Your task to perform on an android device: Open the calendar app, open the side menu, and click the "Day" option Image 0: 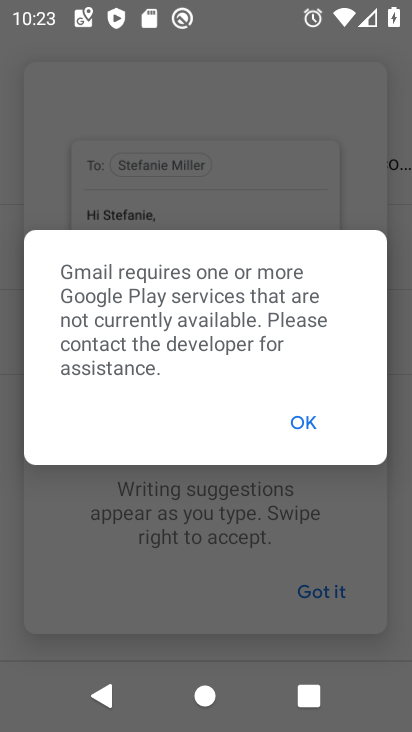
Step 0: press home button
Your task to perform on an android device: Open the calendar app, open the side menu, and click the "Day" option Image 1: 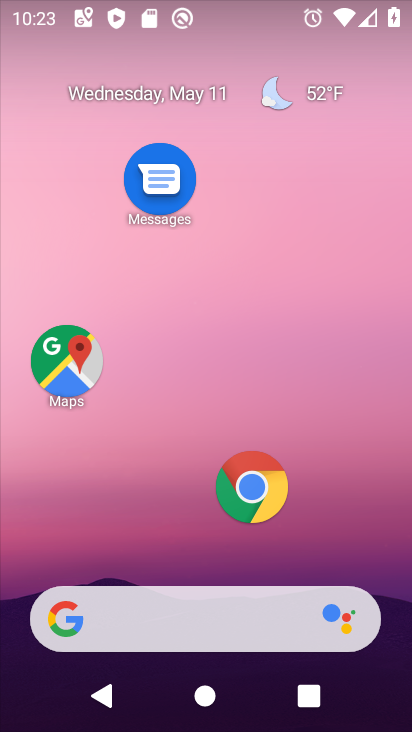
Step 1: drag from (204, 565) to (183, 209)
Your task to perform on an android device: Open the calendar app, open the side menu, and click the "Day" option Image 2: 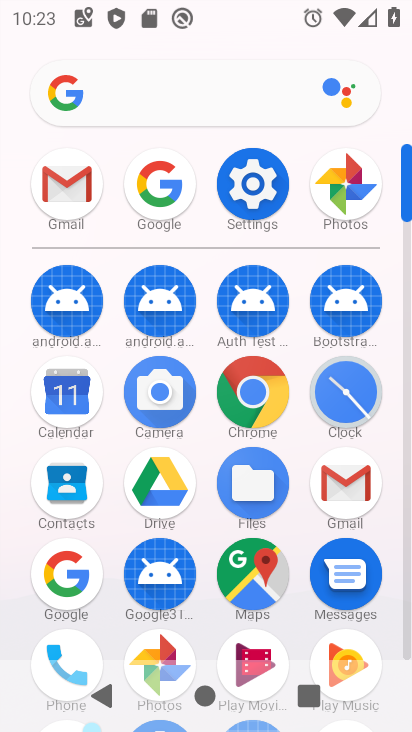
Step 2: click (78, 399)
Your task to perform on an android device: Open the calendar app, open the side menu, and click the "Day" option Image 3: 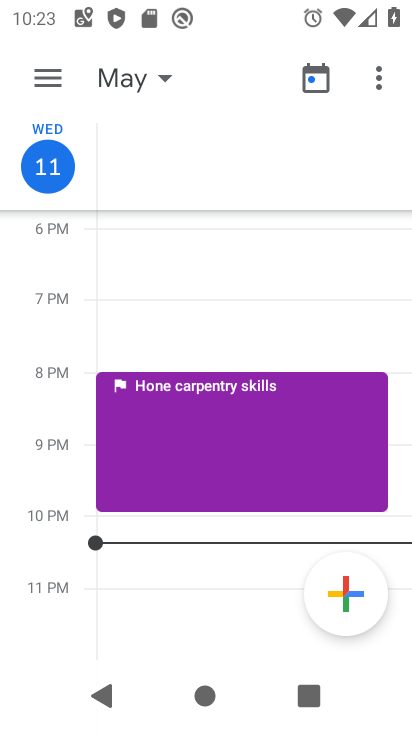
Step 3: click (43, 82)
Your task to perform on an android device: Open the calendar app, open the side menu, and click the "Day" option Image 4: 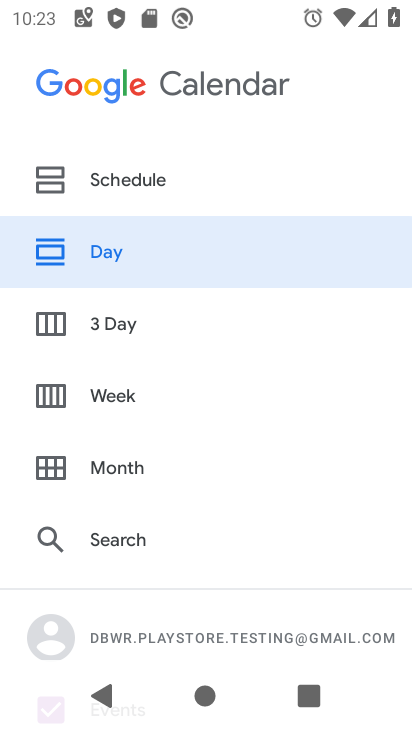
Step 4: click (135, 235)
Your task to perform on an android device: Open the calendar app, open the side menu, and click the "Day" option Image 5: 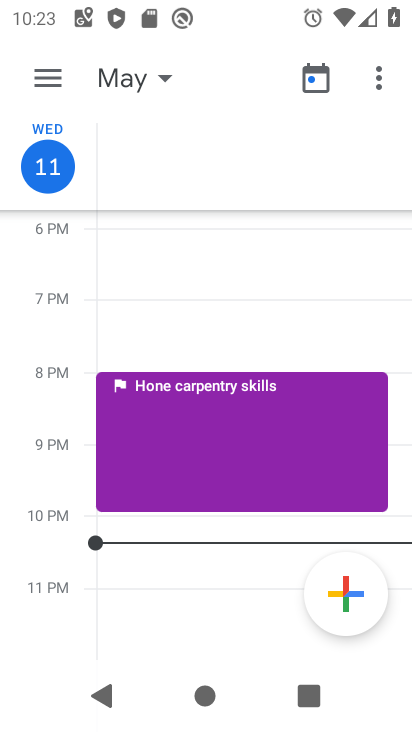
Step 5: task complete